Your task to perform on an android device: toggle notifications settings in the gmail app Image 0: 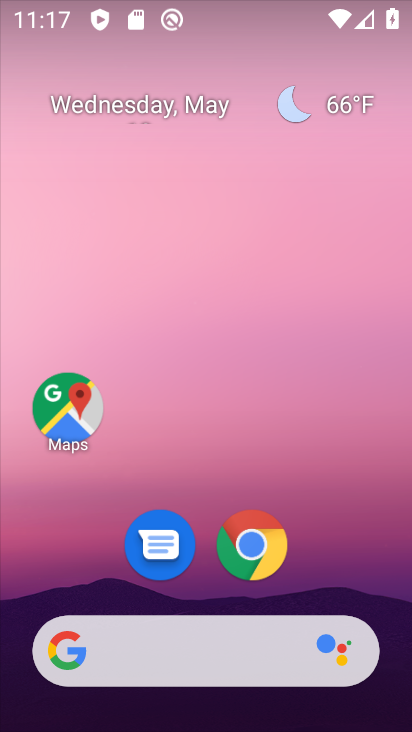
Step 0: drag from (218, 719) to (212, 182)
Your task to perform on an android device: toggle notifications settings in the gmail app Image 1: 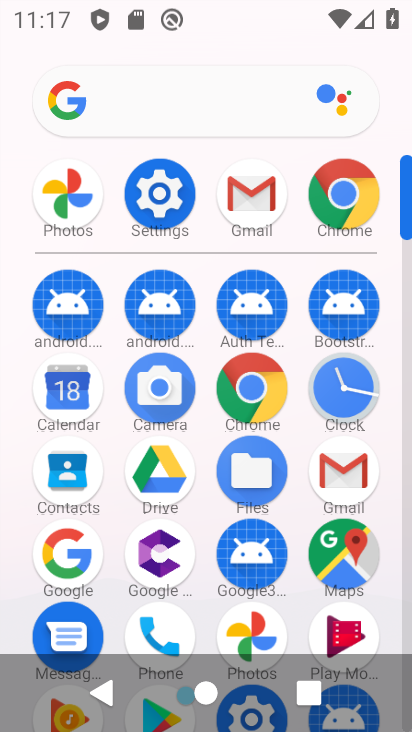
Step 1: click (259, 197)
Your task to perform on an android device: toggle notifications settings in the gmail app Image 2: 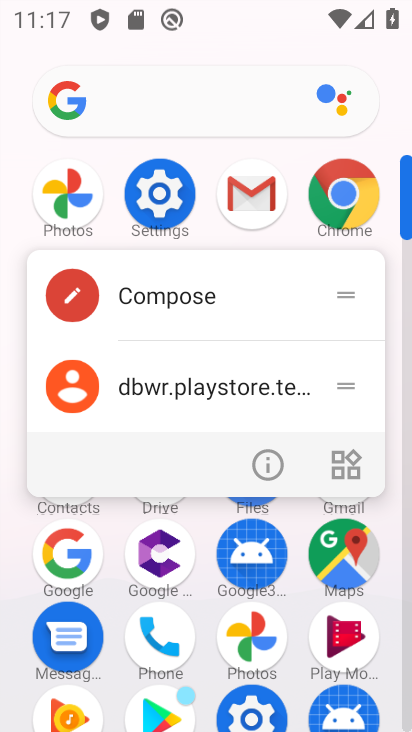
Step 2: click (264, 459)
Your task to perform on an android device: toggle notifications settings in the gmail app Image 3: 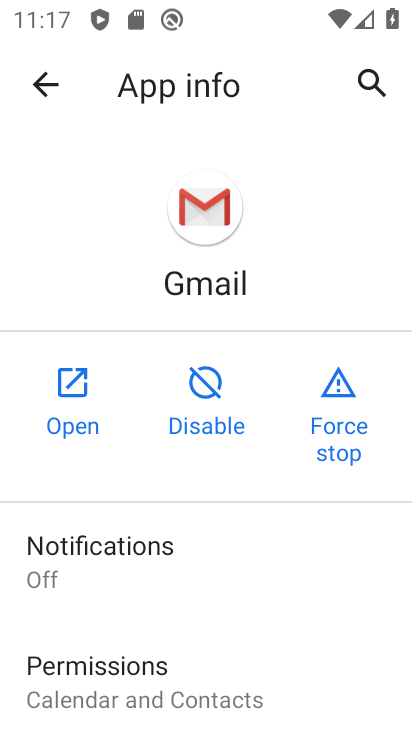
Step 3: click (253, 548)
Your task to perform on an android device: toggle notifications settings in the gmail app Image 4: 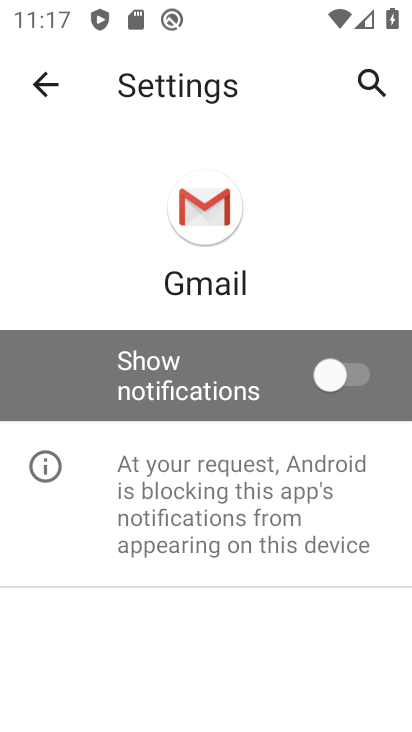
Step 4: click (331, 384)
Your task to perform on an android device: toggle notifications settings in the gmail app Image 5: 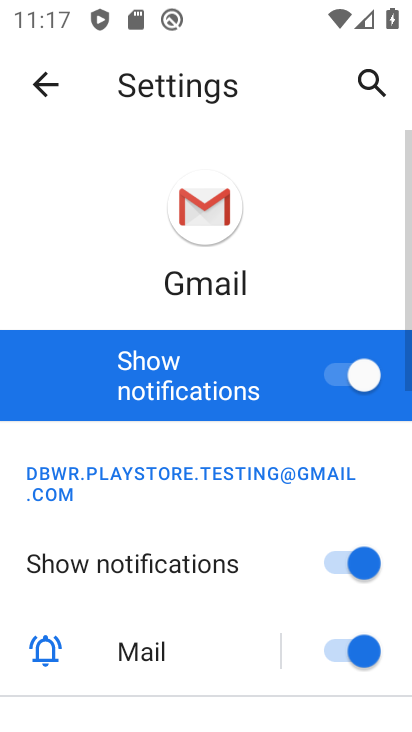
Step 5: task complete